Your task to perform on an android device: Play the last video I watched on Youtube Image 0: 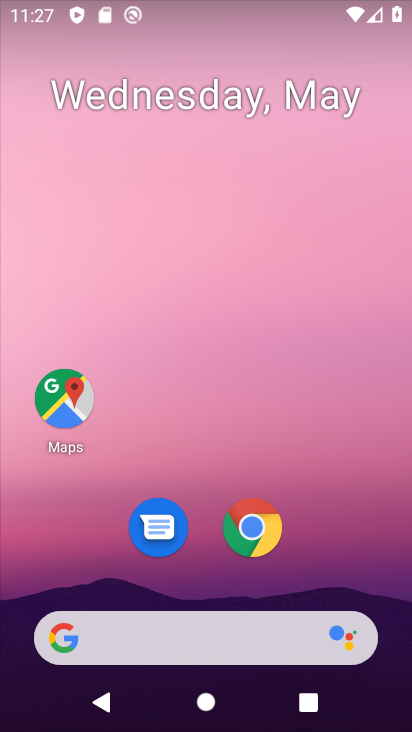
Step 0: drag from (367, 534) to (284, 94)
Your task to perform on an android device: Play the last video I watched on Youtube Image 1: 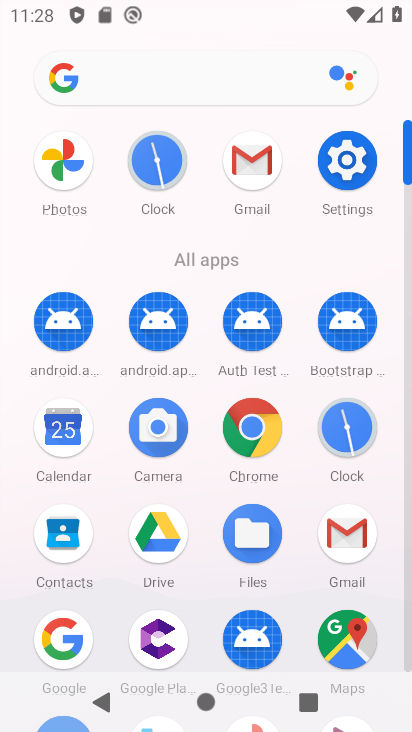
Step 1: click (410, 647)
Your task to perform on an android device: Play the last video I watched on Youtube Image 2: 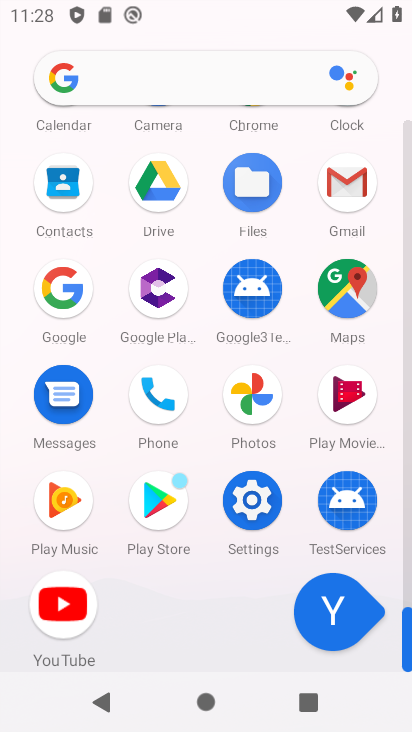
Step 2: click (410, 647)
Your task to perform on an android device: Play the last video I watched on Youtube Image 3: 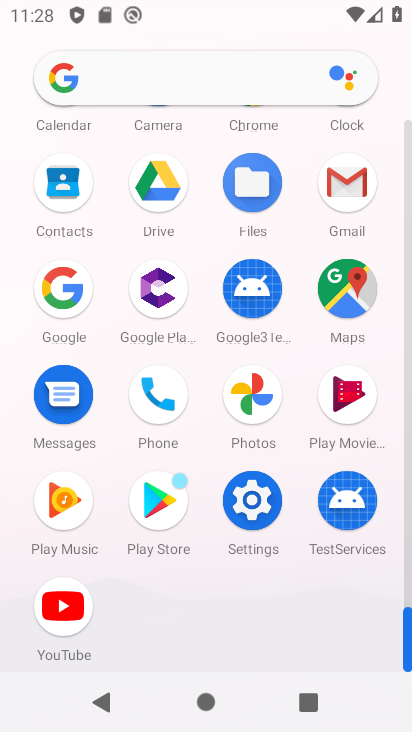
Step 3: click (51, 611)
Your task to perform on an android device: Play the last video I watched on Youtube Image 4: 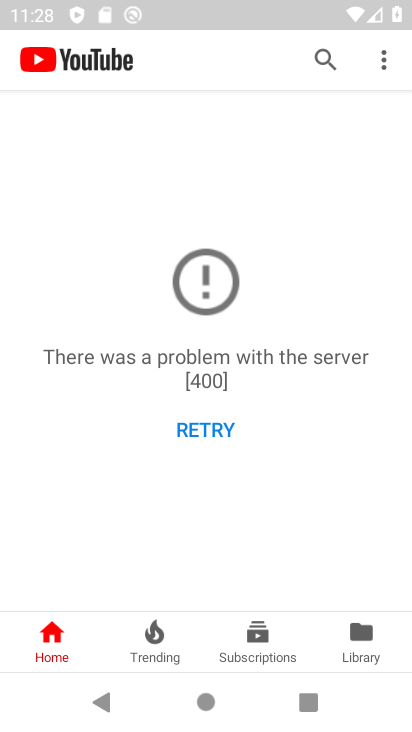
Step 4: task complete